Your task to perform on an android device: Check the news Image 0: 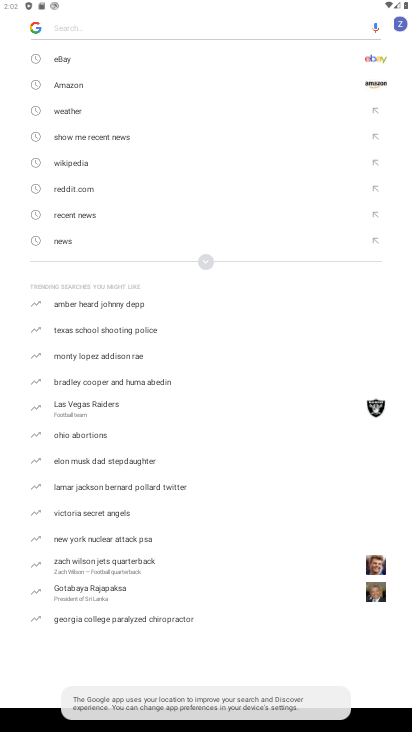
Step 0: press home button
Your task to perform on an android device: Check the news Image 1: 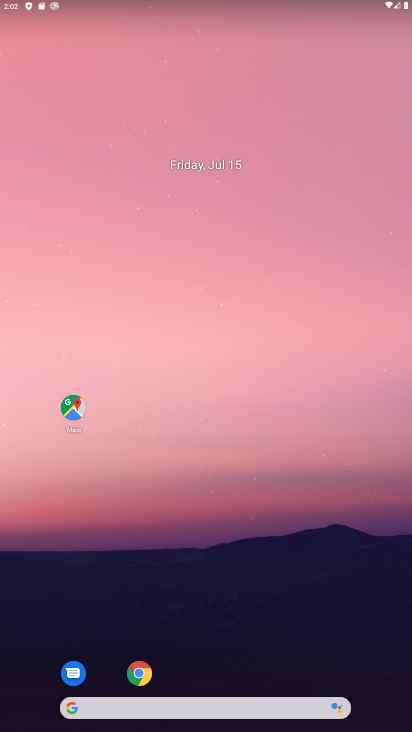
Step 1: drag from (205, 696) to (214, 308)
Your task to perform on an android device: Check the news Image 2: 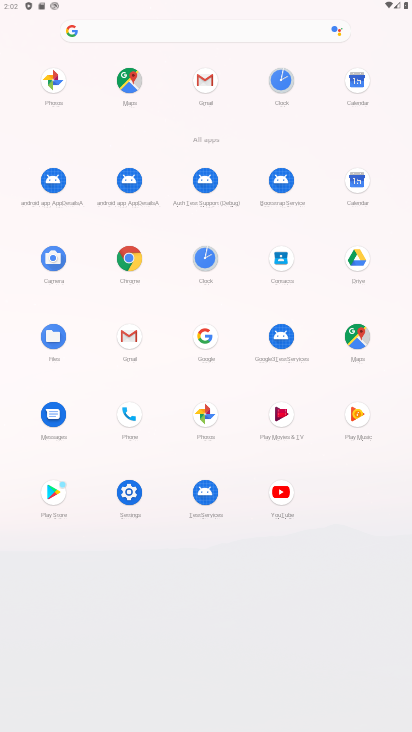
Step 2: click (205, 337)
Your task to perform on an android device: Check the news Image 3: 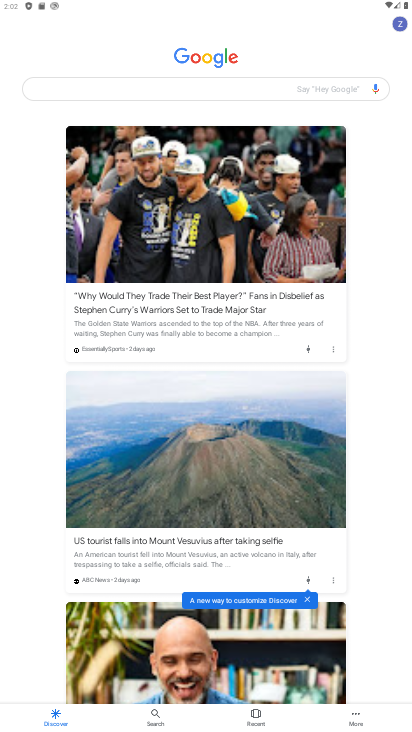
Step 3: click (178, 82)
Your task to perform on an android device: Check the news Image 4: 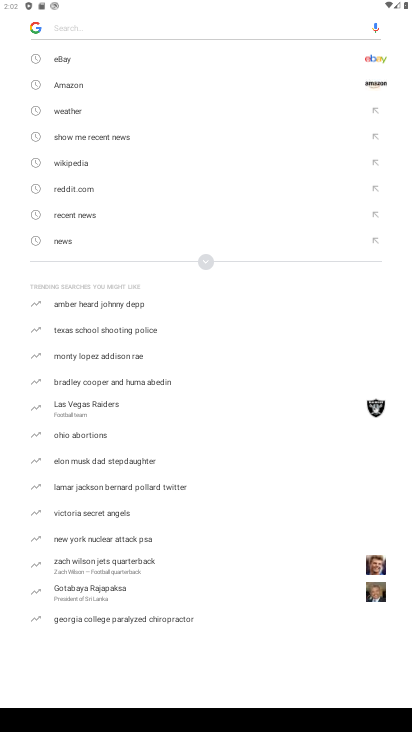
Step 4: click (70, 245)
Your task to perform on an android device: Check the news Image 5: 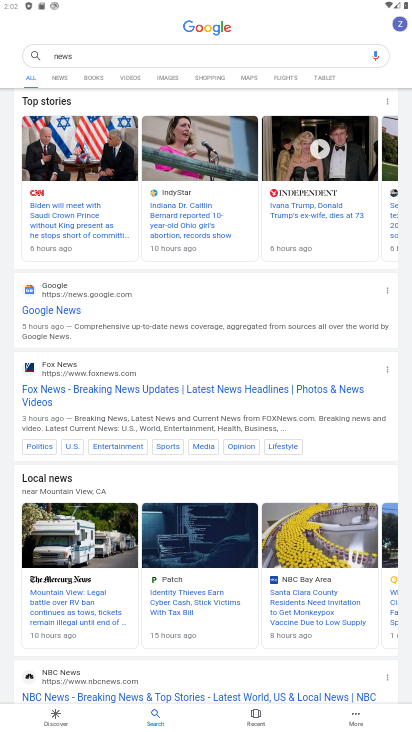
Step 5: task complete